Your task to perform on an android device: What's the US dollar exchange rateagainst the Swiss Franc? Image 0: 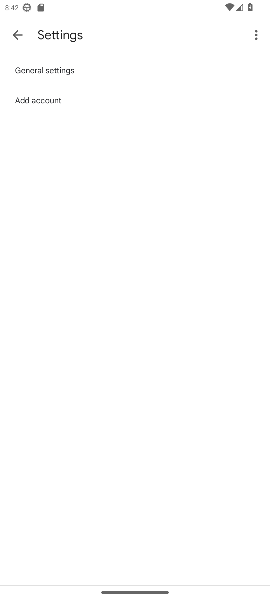
Step 0: press home button
Your task to perform on an android device: What's the US dollar exchange rateagainst the Swiss Franc? Image 1: 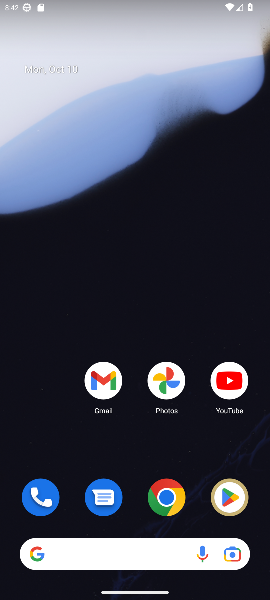
Step 1: drag from (139, 378) to (161, 178)
Your task to perform on an android device: What's the US dollar exchange rateagainst the Swiss Franc? Image 2: 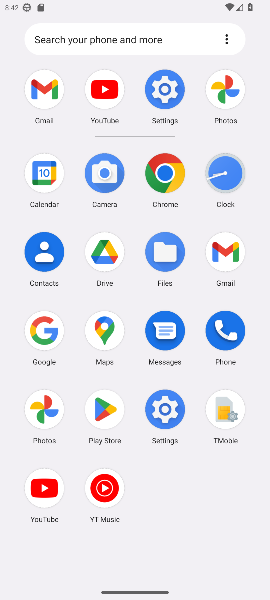
Step 2: click (36, 325)
Your task to perform on an android device: What's the US dollar exchange rateagainst the Swiss Franc? Image 3: 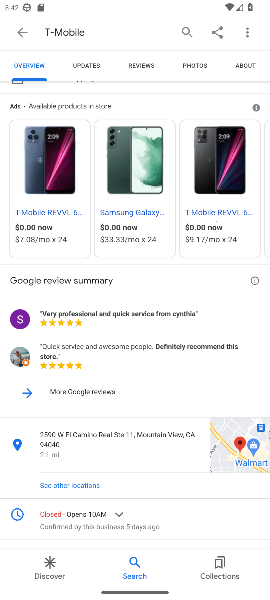
Step 3: click (16, 29)
Your task to perform on an android device: What's the US dollar exchange rateagainst the Swiss Franc? Image 4: 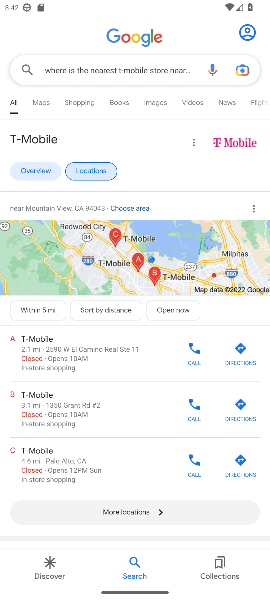
Step 4: click (171, 64)
Your task to perform on an android device: What's the US dollar exchange rateagainst the Swiss Franc? Image 5: 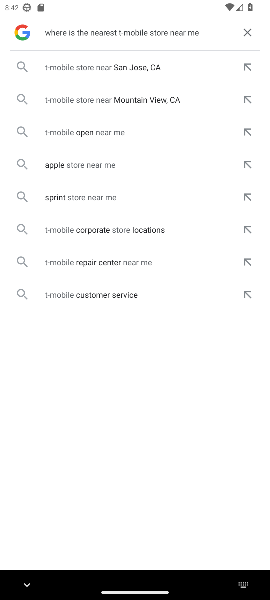
Step 5: click (250, 25)
Your task to perform on an android device: What's the US dollar exchange rateagainst the Swiss Franc? Image 6: 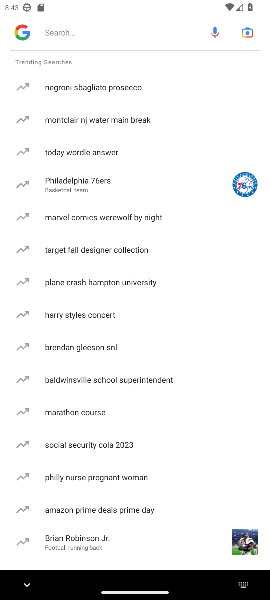
Step 6: click (100, 33)
Your task to perform on an android device: What's the US dollar exchange rateagainst the Swiss Franc? Image 7: 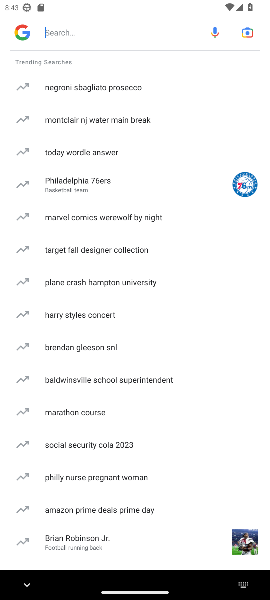
Step 7: type "What's the US dollar exchange rateagainst the Swiss Franc?"
Your task to perform on an android device: What's the US dollar exchange rateagainst the Swiss Franc? Image 8: 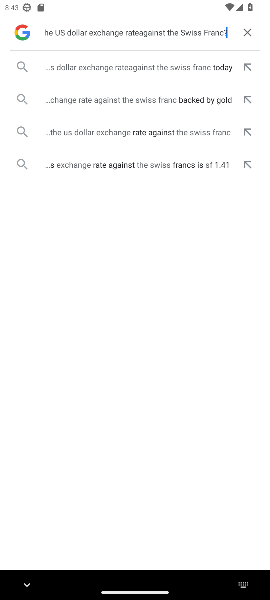
Step 8: click (93, 63)
Your task to perform on an android device: What's the US dollar exchange rateagainst the Swiss Franc? Image 9: 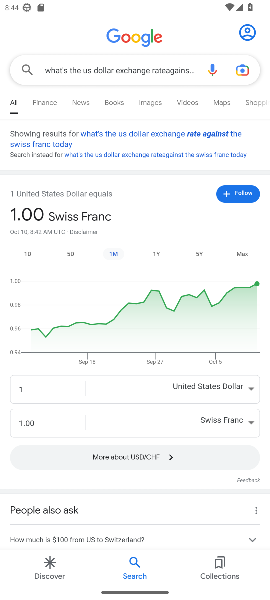
Step 9: task complete